Your task to perform on an android device: Open calendar and show me the fourth week of next month Image 0: 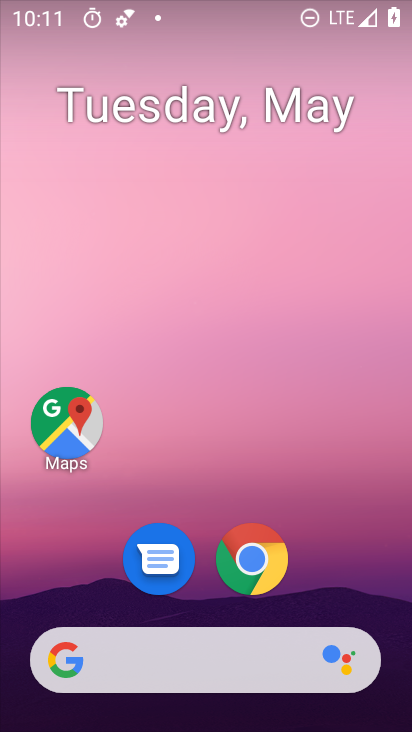
Step 0: drag from (377, 624) to (267, 48)
Your task to perform on an android device: Open calendar and show me the fourth week of next month Image 1: 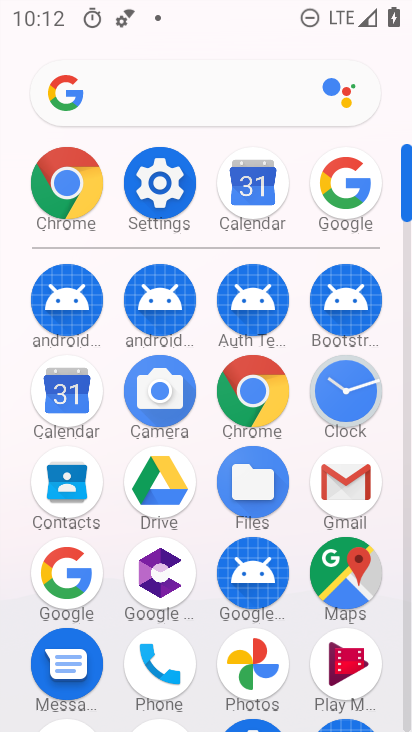
Step 1: click (78, 395)
Your task to perform on an android device: Open calendar and show me the fourth week of next month Image 2: 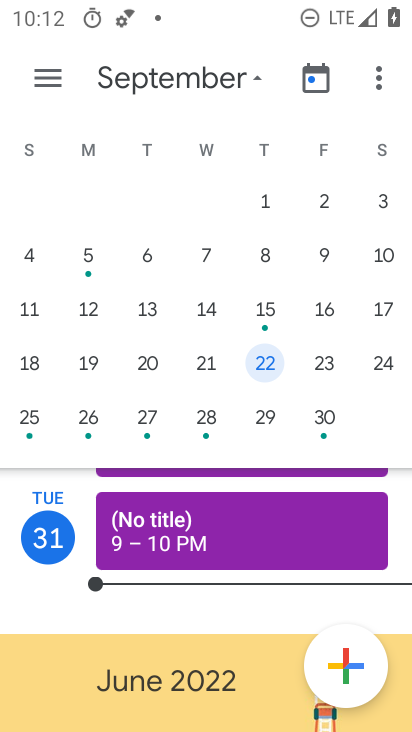
Step 2: drag from (395, 281) to (8, 270)
Your task to perform on an android device: Open calendar and show me the fourth week of next month Image 3: 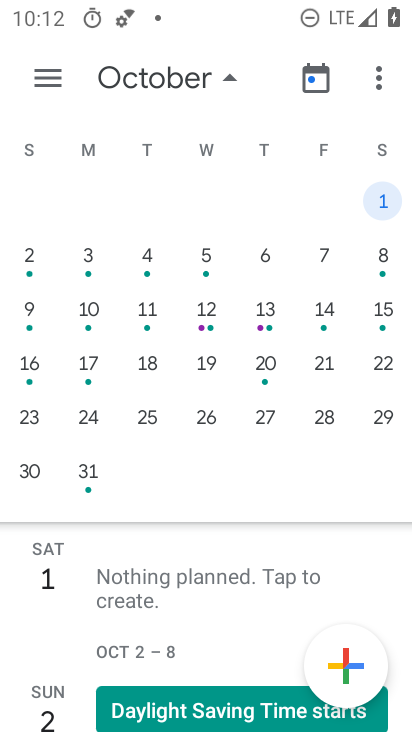
Step 3: click (251, 415)
Your task to perform on an android device: Open calendar and show me the fourth week of next month Image 4: 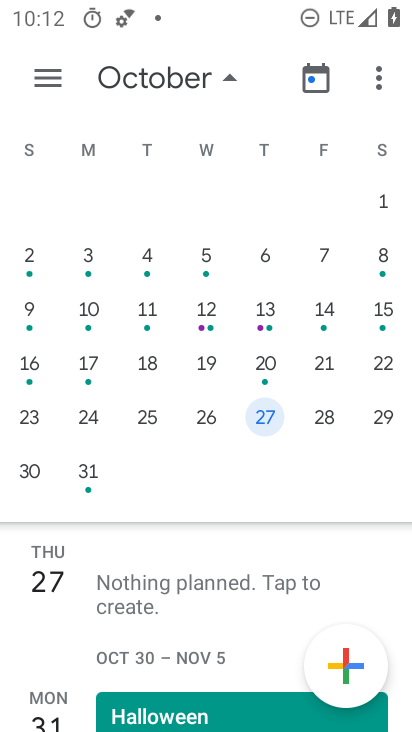
Step 4: task complete